Your task to perform on an android device: Search for "razer naga" on walmart.com, select the first entry, add it to the cart, then select checkout. Image 0: 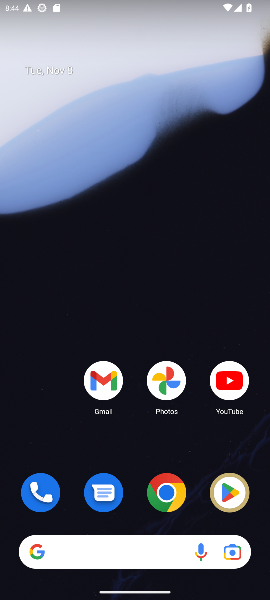
Step 0: click (162, 487)
Your task to perform on an android device: Search for "razer naga" on walmart.com, select the first entry, add it to the cart, then select checkout. Image 1: 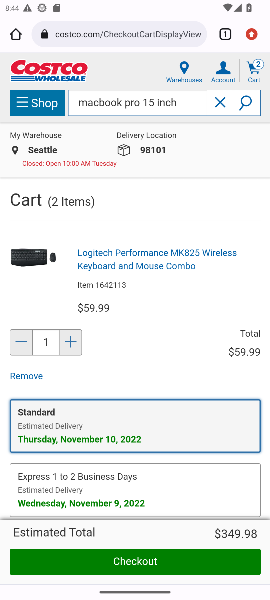
Step 1: click (172, 28)
Your task to perform on an android device: Search for "razer naga" on walmart.com, select the first entry, add it to the cart, then select checkout. Image 2: 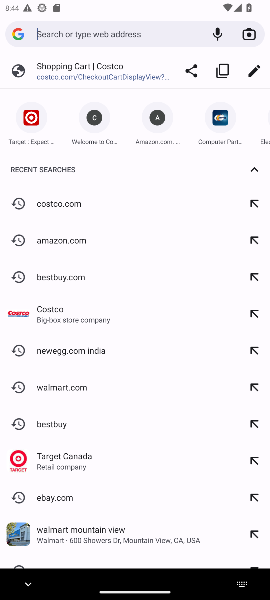
Step 2: click (76, 386)
Your task to perform on an android device: Search for "razer naga" on walmart.com, select the first entry, add it to the cart, then select checkout. Image 3: 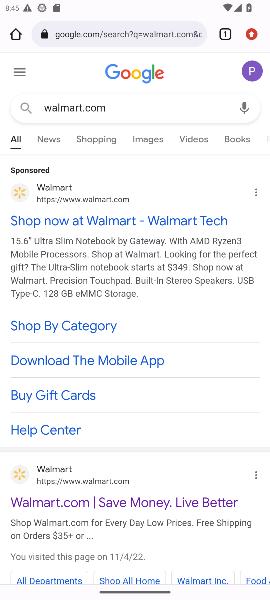
Step 3: click (70, 191)
Your task to perform on an android device: Search for "razer naga" on walmart.com, select the first entry, add it to the cart, then select checkout. Image 4: 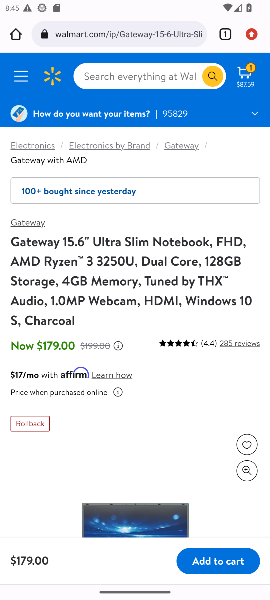
Step 4: click (137, 77)
Your task to perform on an android device: Search for "razer naga" on walmart.com, select the first entry, add it to the cart, then select checkout. Image 5: 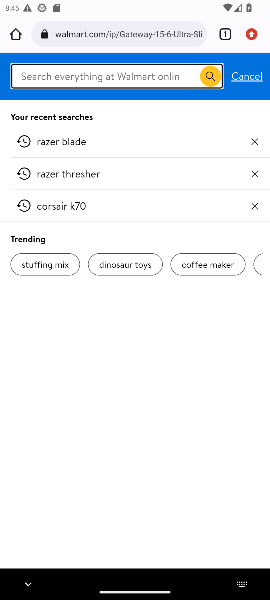
Step 5: type "razer naga"
Your task to perform on an android device: Search for "razer naga" on walmart.com, select the first entry, add it to the cart, then select checkout. Image 6: 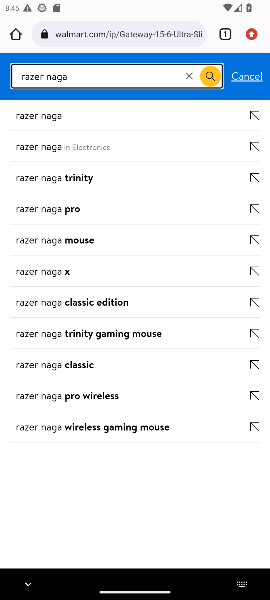
Step 6: click (52, 114)
Your task to perform on an android device: Search for "razer naga" on walmart.com, select the first entry, add it to the cart, then select checkout. Image 7: 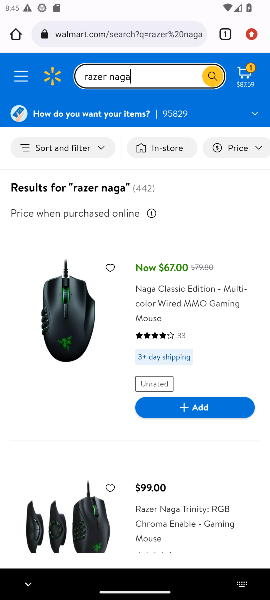
Step 7: click (88, 519)
Your task to perform on an android device: Search for "razer naga" on walmart.com, select the first entry, add it to the cart, then select checkout. Image 8: 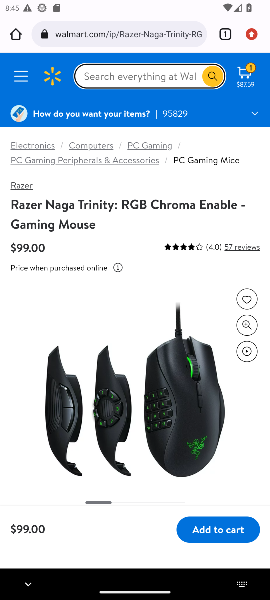
Step 8: drag from (116, 365) to (128, 207)
Your task to perform on an android device: Search for "razer naga" on walmart.com, select the first entry, add it to the cart, then select checkout. Image 9: 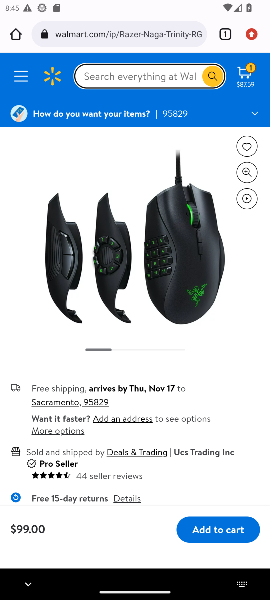
Step 9: click (220, 527)
Your task to perform on an android device: Search for "razer naga" on walmart.com, select the first entry, add it to the cart, then select checkout. Image 10: 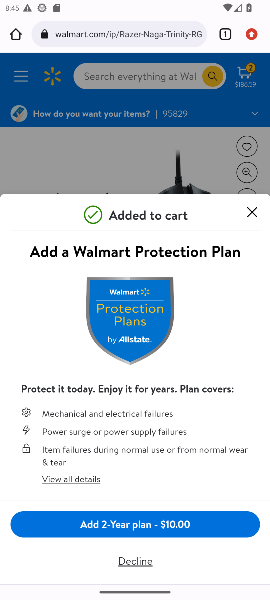
Step 10: click (255, 209)
Your task to perform on an android device: Search for "razer naga" on walmart.com, select the first entry, add it to the cart, then select checkout. Image 11: 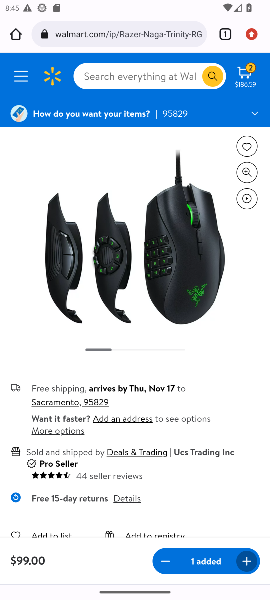
Step 11: click (247, 77)
Your task to perform on an android device: Search for "razer naga" on walmart.com, select the first entry, add it to the cart, then select checkout. Image 12: 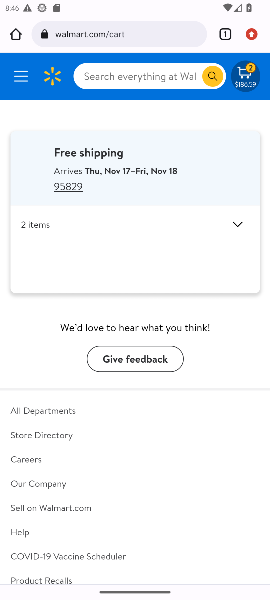
Step 12: click (248, 73)
Your task to perform on an android device: Search for "razer naga" on walmart.com, select the first entry, add it to the cart, then select checkout. Image 13: 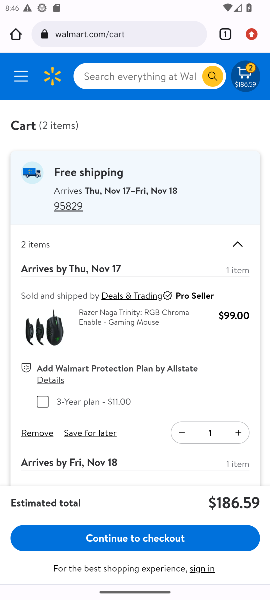
Step 13: click (154, 536)
Your task to perform on an android device: Search for "razer naga" on walmart.com, select the first entry, add it to the cart, then select checkout. Image 14: 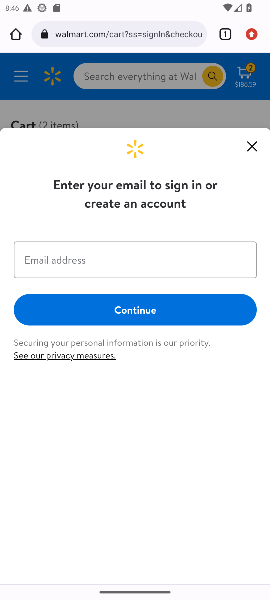
Step 14: task complete